Your task to perform on an android device: View the shopping cart on amazon.com. Search for acer nitro on amazon.com, select the first entry, add it to the cart, then select checkout. Image 0: 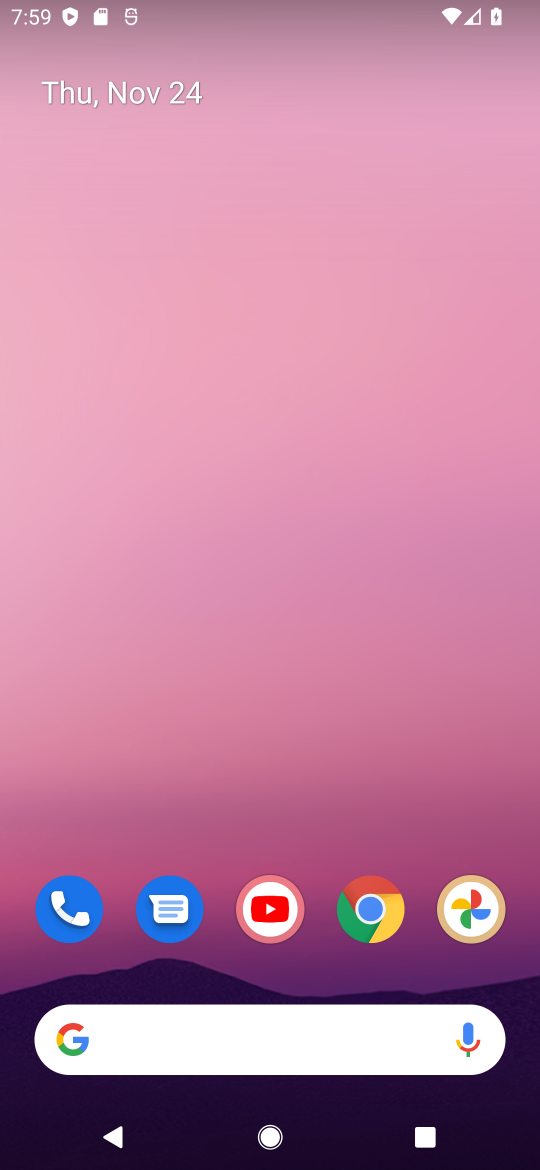
Step 0: click (372, 906)
Your task to perform on an android device: View the shopping cart on amazon.com. Search for acer nitro on amazon.com, select the first entry, add it to the cart, then select checkout. Image 1: 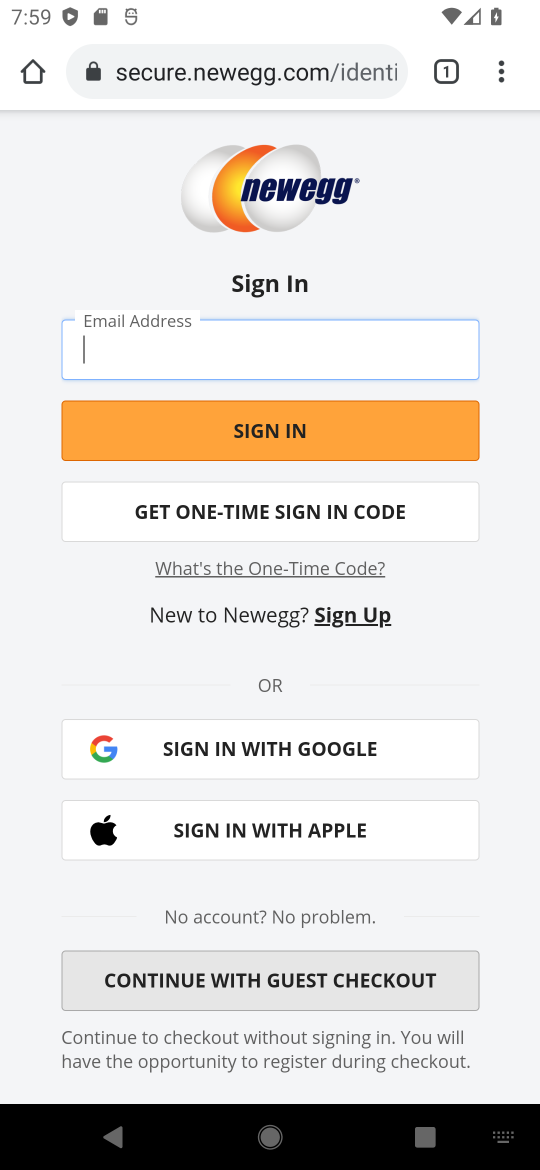
Step 1: click (303, 79)
Your task to perform on an android device: View the shopping cart on amazon.com. Search for acer nitro on amazon.com, select the first entry, add it to the cart, then select checkout. Image 2: 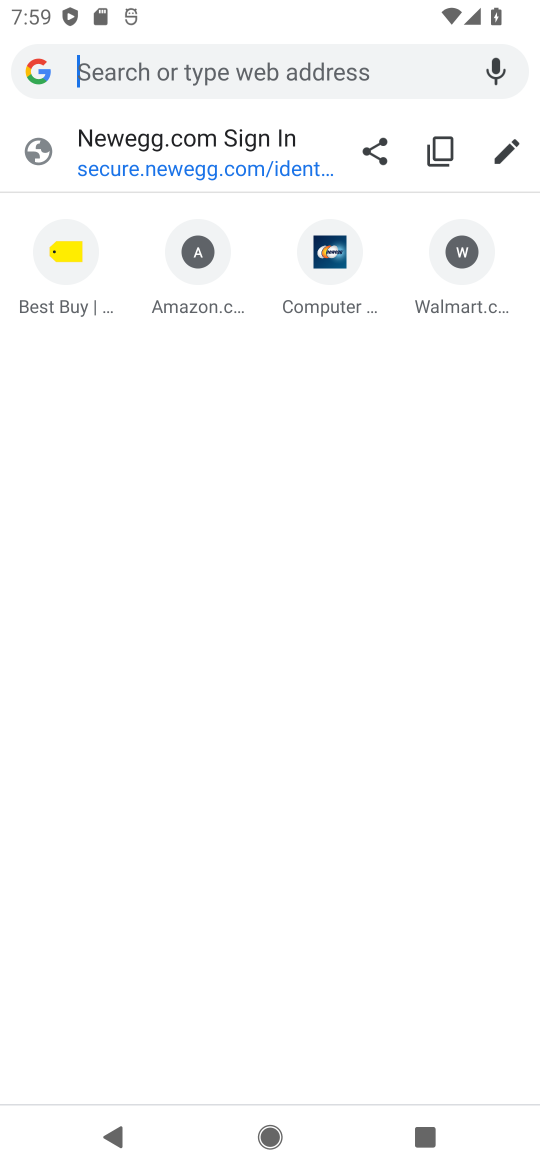
Step 2: type "amazon.com"
Your task to perform on an android device: View the shopping cart on amazon.com. Search for acer nitro on amazon.com, select the first entry, add it to the cart, then select checkout. Image 3: 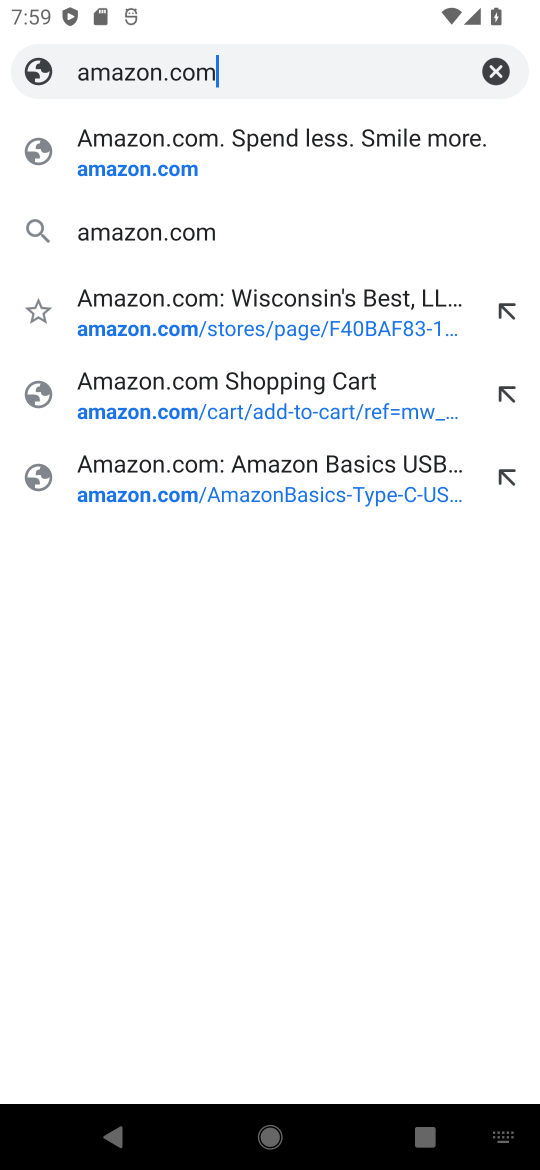
Step 3: click (178, 150)
Your task to perform on an android device: View the shopping cart on amazon.com. Search for acer nitro on amazon.com, select the first entry, add it to the cart, then select checkout. Image 4: 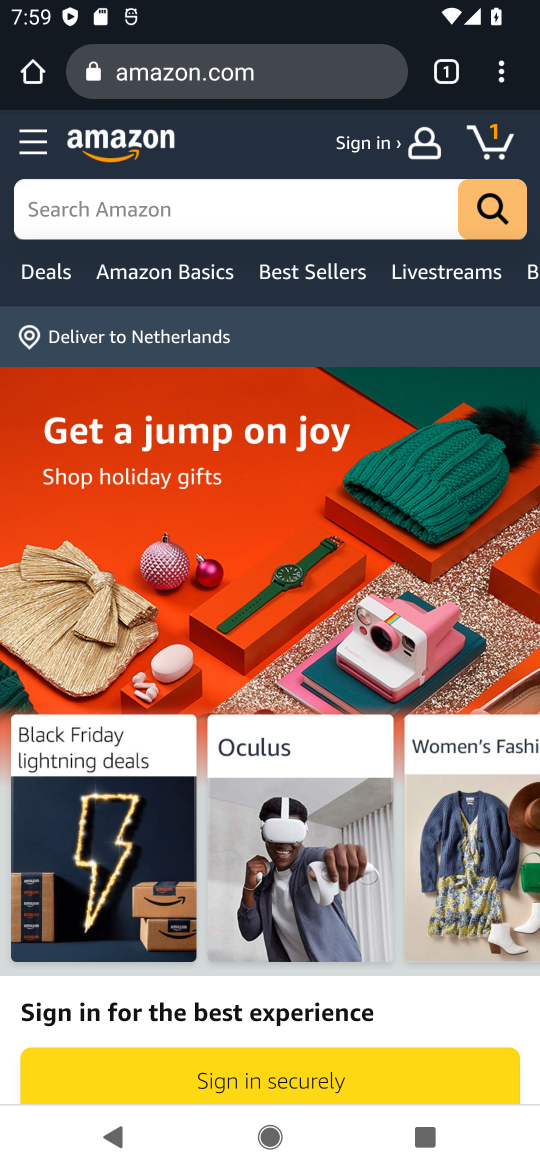
Step 4: click (296, 204)
Your task to perform on an android device: View the shopping cart on amazon.com. Search for acer nitro on amazon.com, select the first entry, add it to the cart, then select checkout. Image 5: 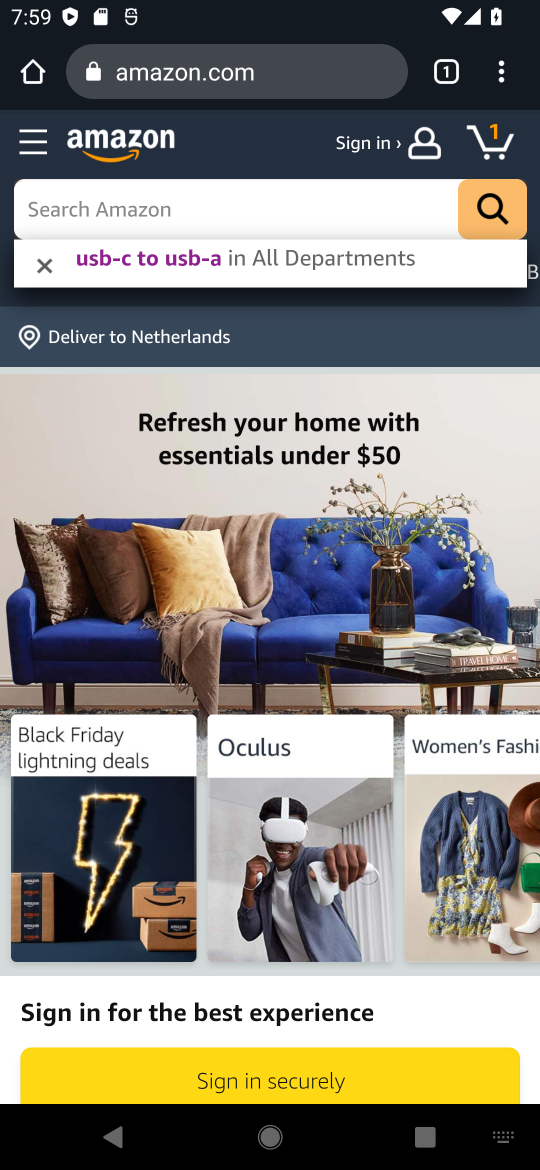
Step 5: click (505, 142)
Your task to perform on an android device: View the shopping cart on amazon.com. Search for acer nitro on amazon.com, select the first entry, add it to the cart, then select checkout. Image 6: 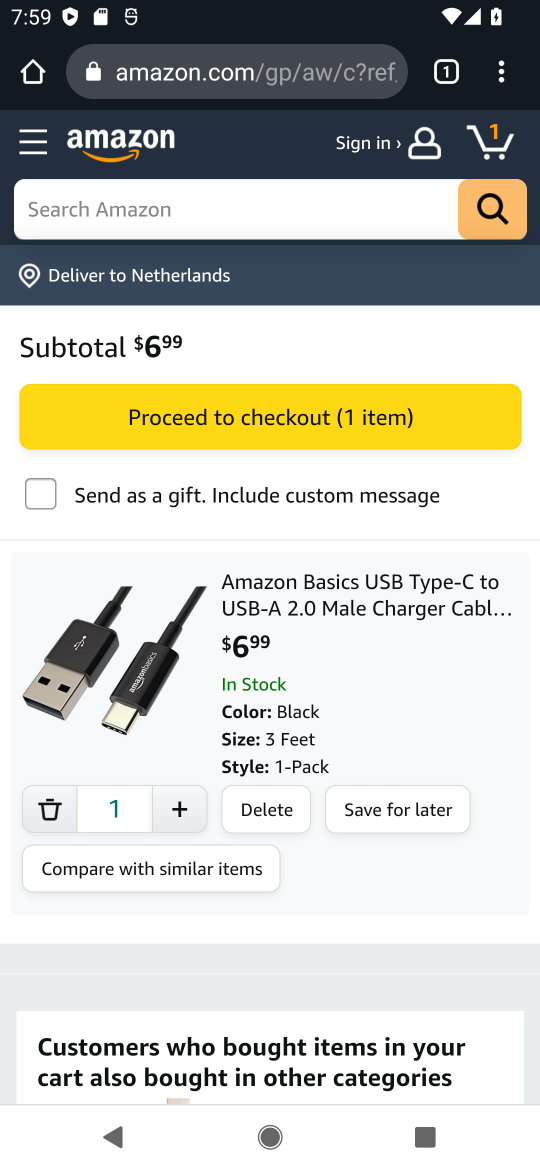
Step 6: click (350, 215)
Your task to perform on an android device: View the shopping cart on amazon.com. Search for acer nitro on amazon.com, select the first entry, add it to the cart, then select checkout. Image 7: 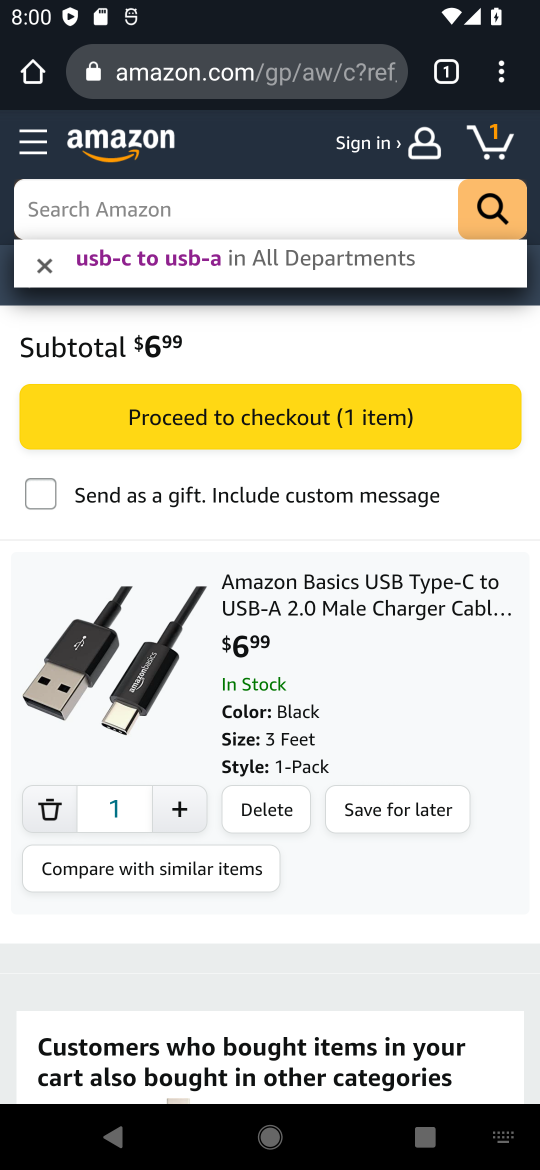
Step 7: type "acer nitro"
Your task to perform on an android device: View the shopping cart on amazon.com. Search for acer nitro on amazon.com, select the first entry, add it to the cart, then select checkout. Image 8: 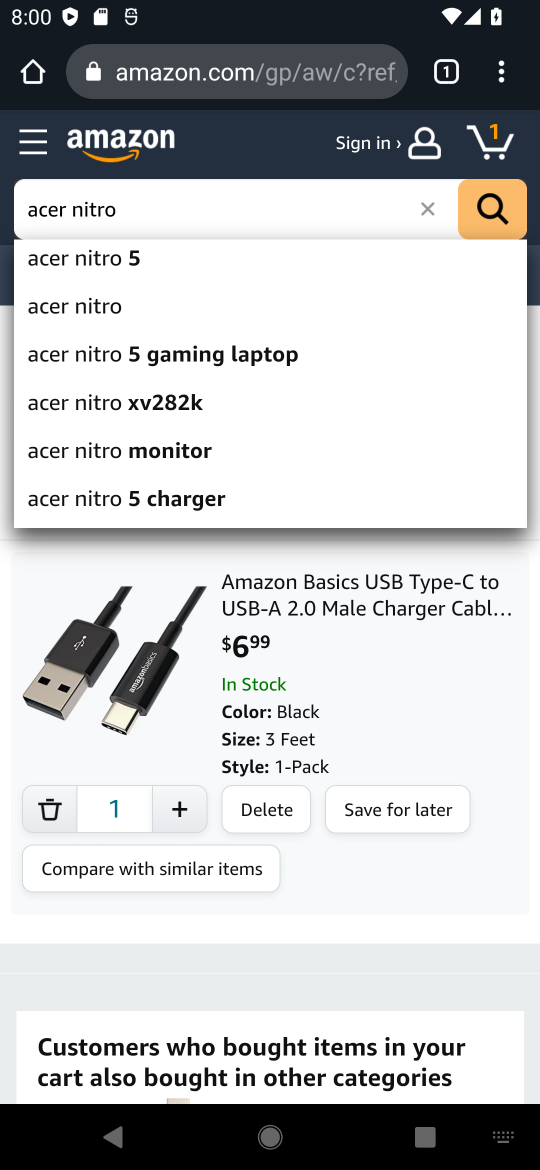
Step 8: press enter
Your task to perform on an android device: View the shopping cart on amazon.com. Search for acer nitro on amazon.com, select the first entry, add it to the cart, then select checkout. Image 9: 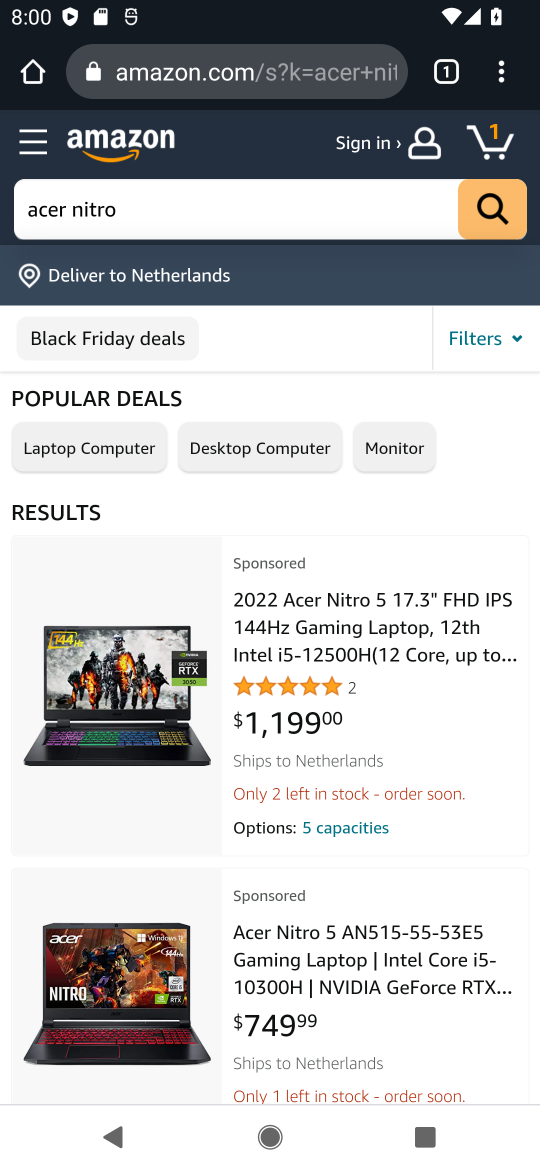
Step 9: click (322, 640)
Your task to perform on an android device: View the shopping cart on amazon.com. Search for acer nitro on amazon.com, select the first entry, add it to the cart, then select checkout. Image 10: 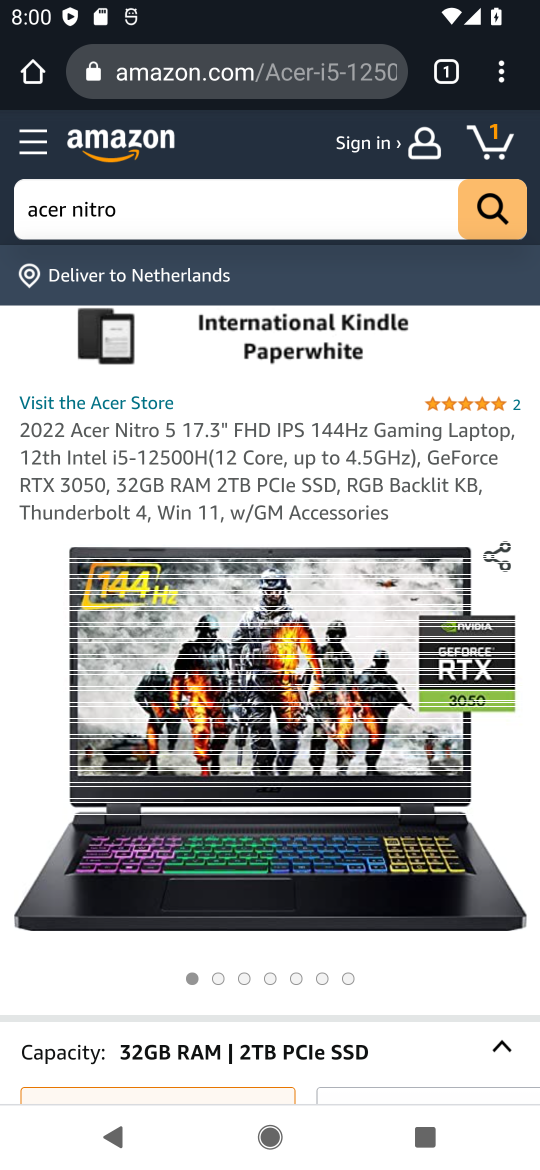
Step 10: drag from (236, 983) to (268, 320)
Your task to perform on an android device: View the shopping cart on amazon.com. Search for acer nitro on amazon.com, select the first entry, add it to the cart, then select checkout. Image 11: 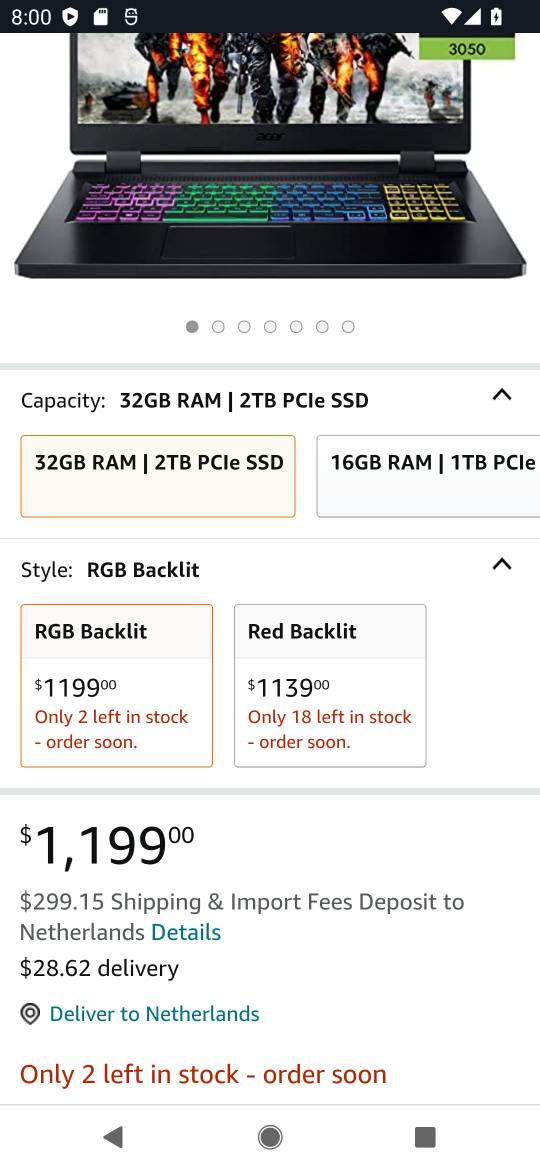
Step 11: drag from (259, 989) to (241, 362)
Your task to perform on an android device: View the shopping cart on amazon.com. Search for acer nitro on amazon.com, select the first entry, add it to the cart, then select checkout. Image 12: 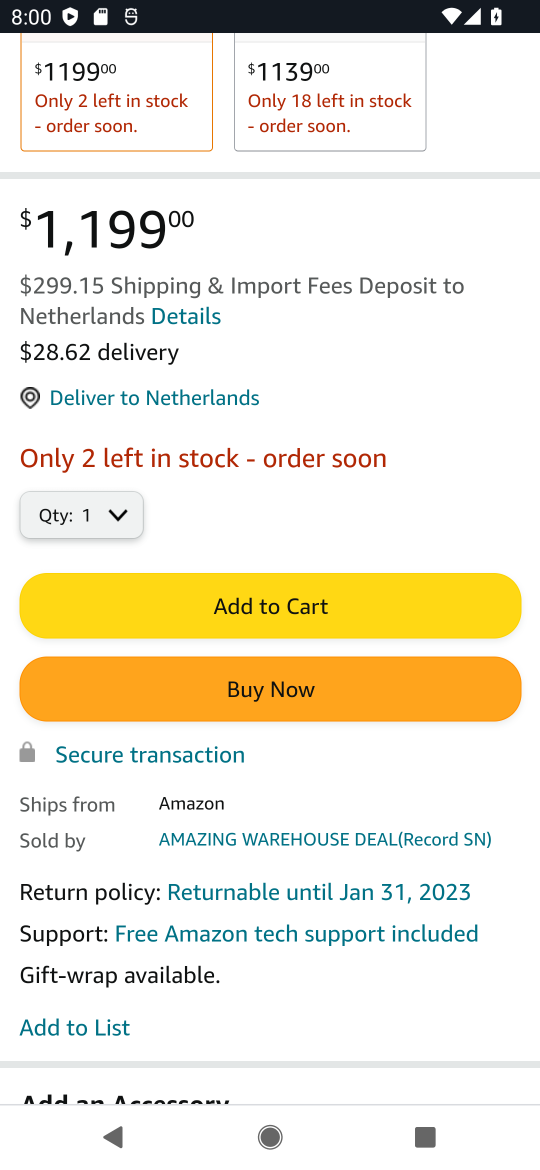
Step 12: click (310, 617)
Your task to perform on an android device: View the shopping cart on amazon.com. Search for acer nitro on amazon.com, select the first entry, add it to the cart, then select checkout. Image 13: 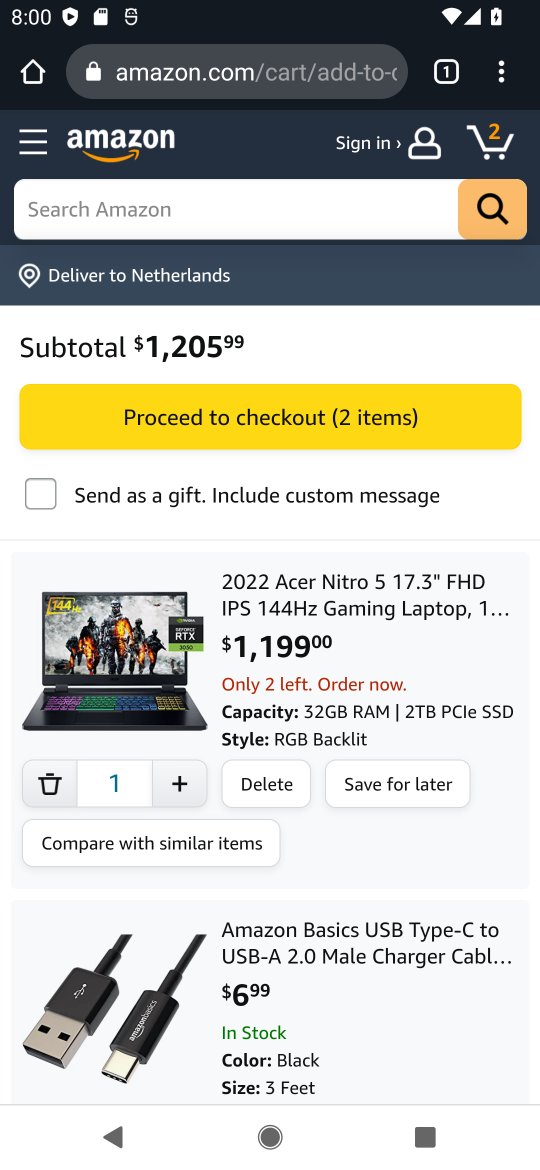
Step 13: click (393, 420)
Your task to perform on an android device: View the shopping cart on amazon.com. Search for acer nitro on amazon.com, select the first entry, add it to the cart, then select checkout. Image 14: 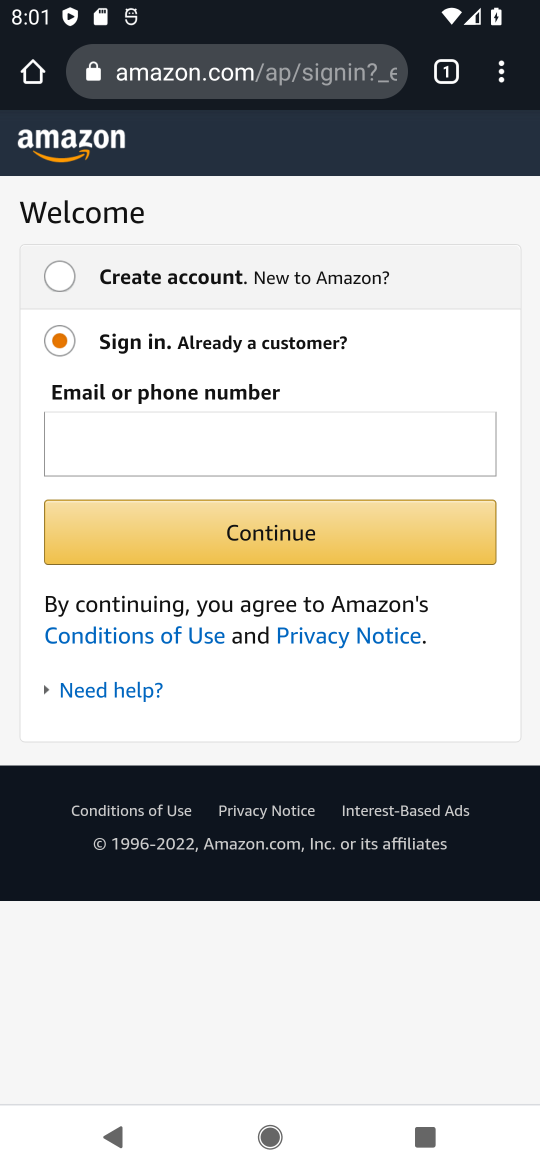
Step 14: task complete